Your task to perform on an android device: turn off notifications settings in the gmail app Image 0: 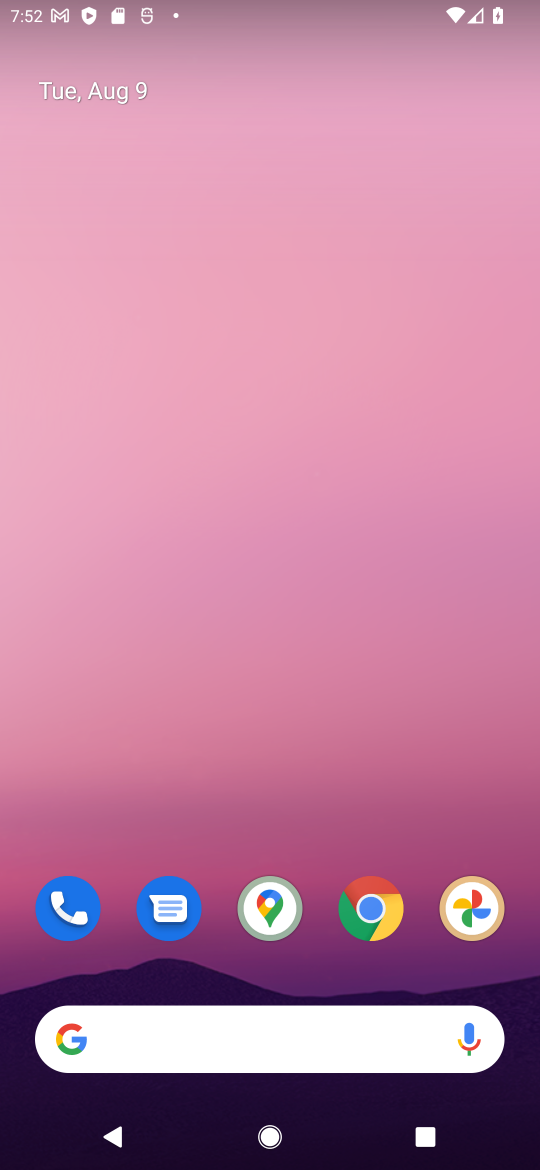
Step 0: drag from (332, 678) to (332, 252)
Your task to perform on an android device: turn off notifications settings in the gmail app Image 1: 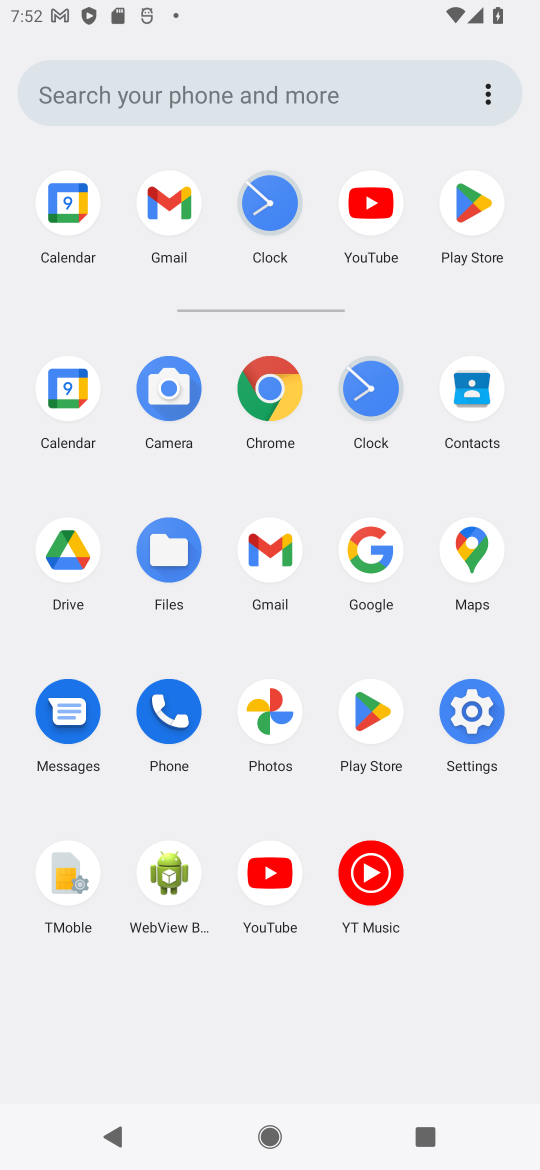
Step 1: click (277, 555)
Your task to perform on an android device: turn off notifications settings in the gmail app Image 2: 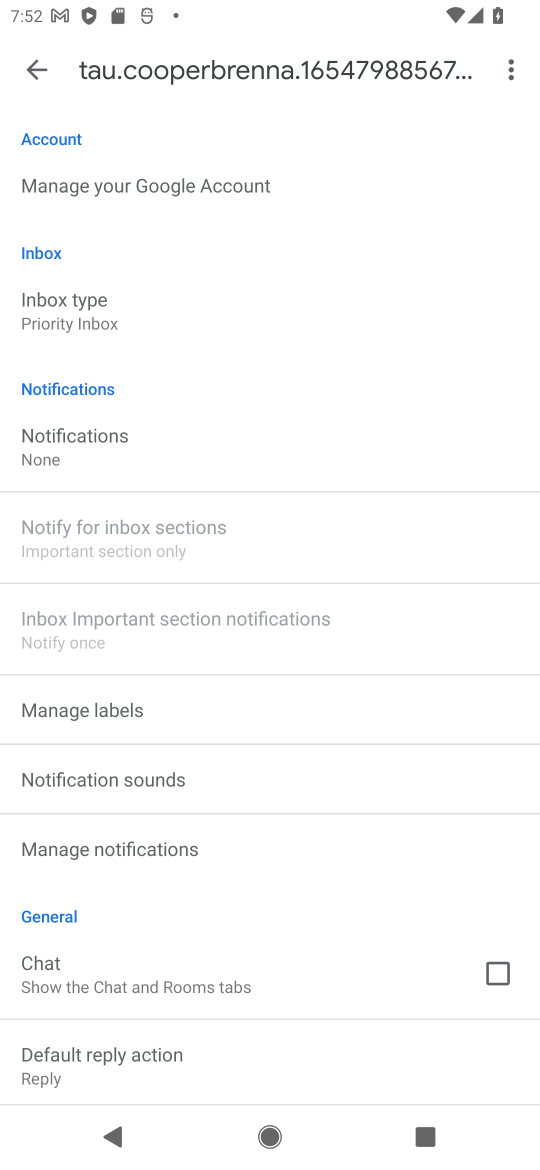
Step 2: task complete